Your task to perform on an android device: Search for pizza restaurants on Maps Image 0: 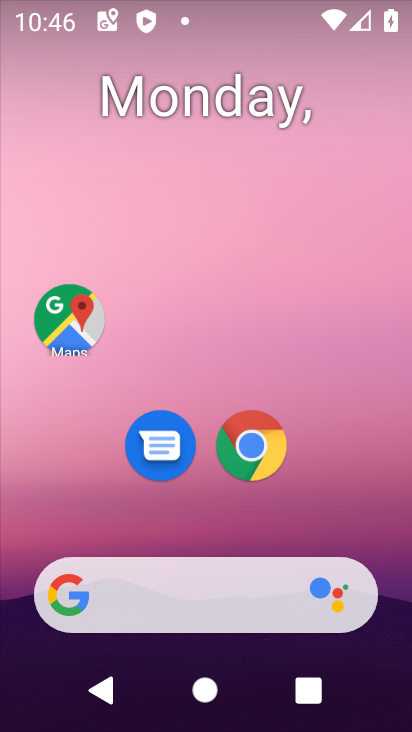
Step 0: click (62, 314)
Your task to perform on an android device: Search for pizza restaurants on Maps Image 1: 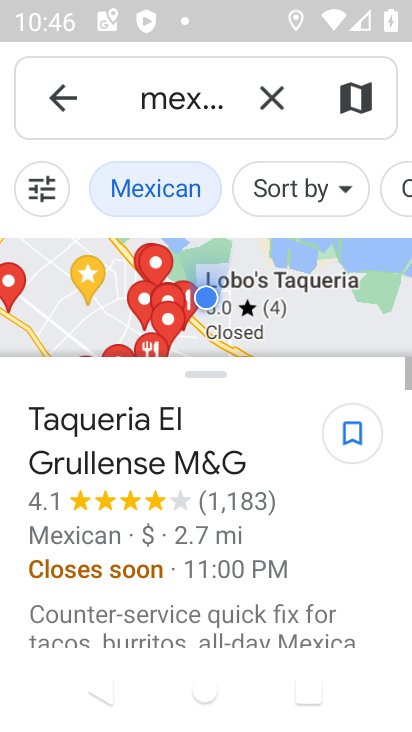
Step 1: click (266, 101)
Your task to perform on an android device: Search for pizza restaurants on Maps Image 2: 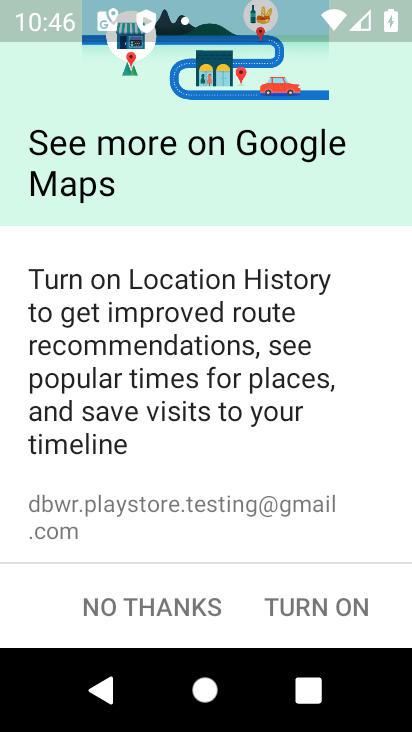
Step 2: click (349, 604)
Your task to perform on an android device: Search for pizza restaurants on Maps Image 3: 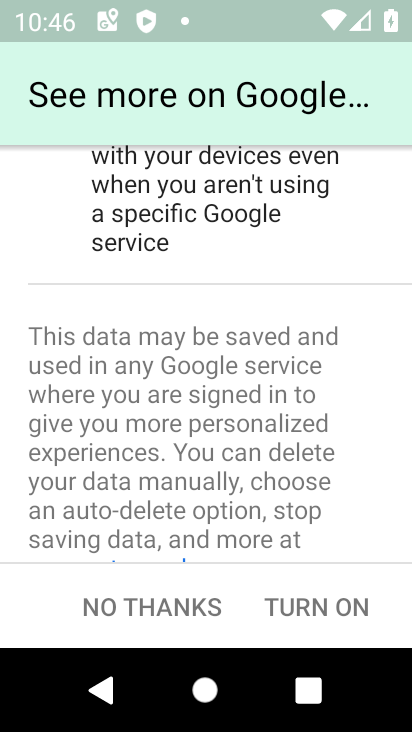
Step 3: click (286, 617)
Your task to perform on an android device: Search for pizza restaurants on Maps Image 4: 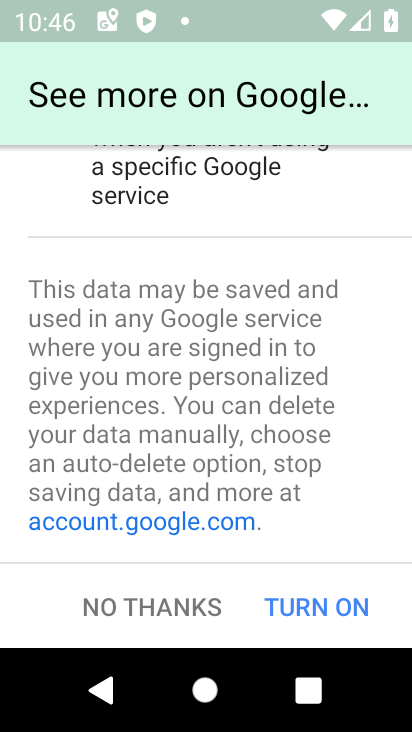
Step 4: click (292, 612)
Your task to perform on an android device: Search for pizza restaurants on Maps Image 5: 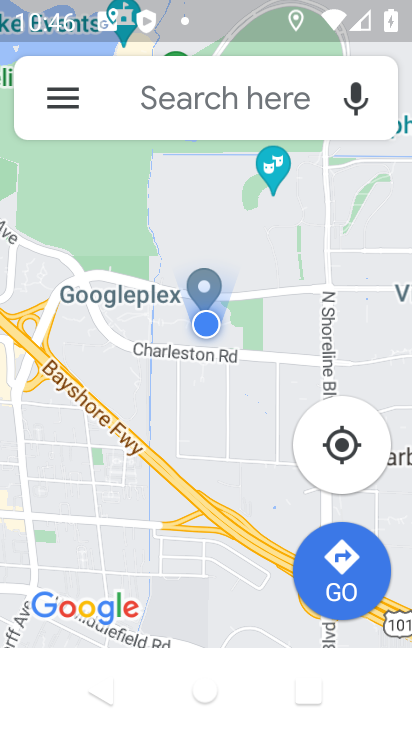
Step 5: click (116, 106)
Your task to perform on an android device: Search for pizza restaurants on Maps Image 6: 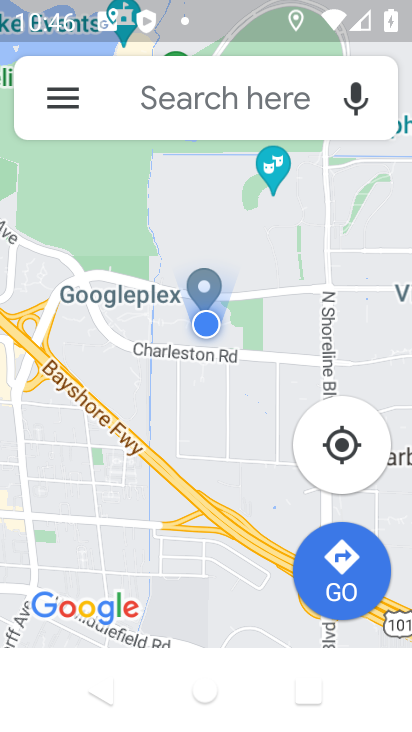
Step 6: click (250, 100)
Your task to perform on an android device: Search for pizza restaurants on Maps Image 7: 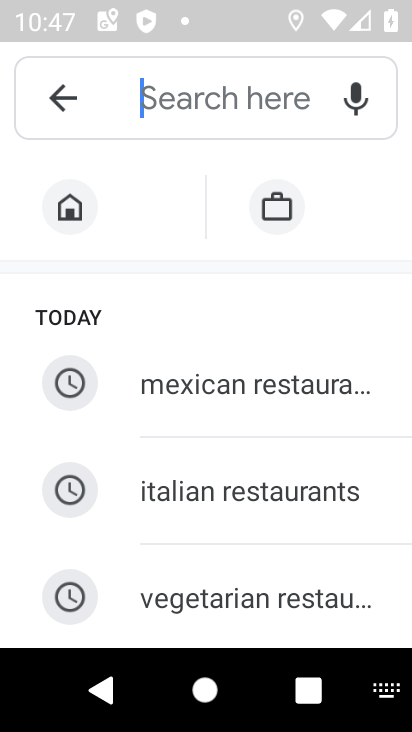
Step 7: type "pizza restaurants"
Your task to perform on an android device: Search for pizza restaurants on Maps Image 8: 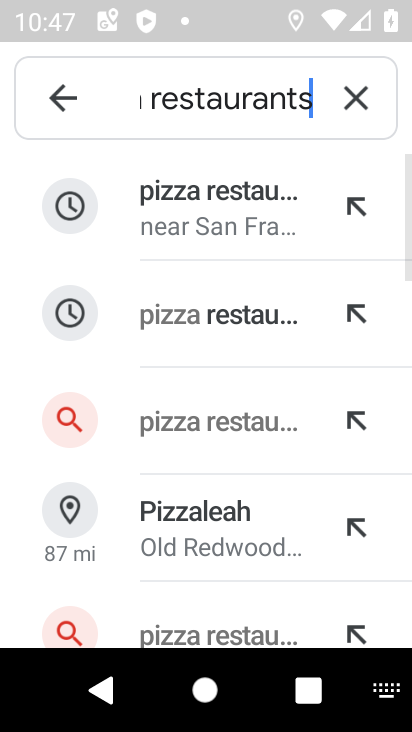
Step 8: click (171, 210)
Your task to perform on an android device: Search for pizza restaurants on Maps Image 9: 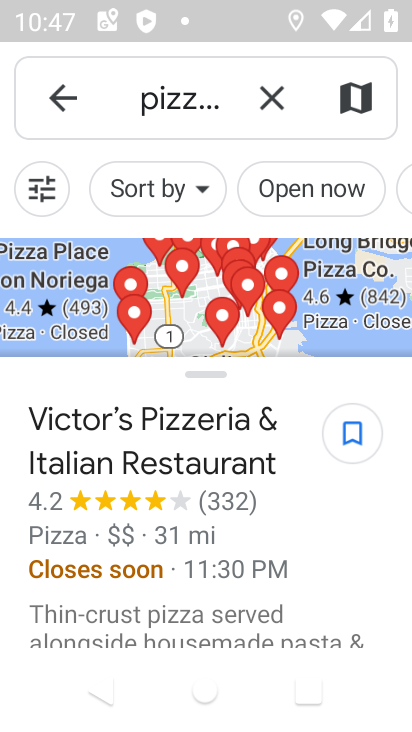
Step 9: task complete